Your task to perform on an android device: Add "logitech g502" to the cart on target Image 0: 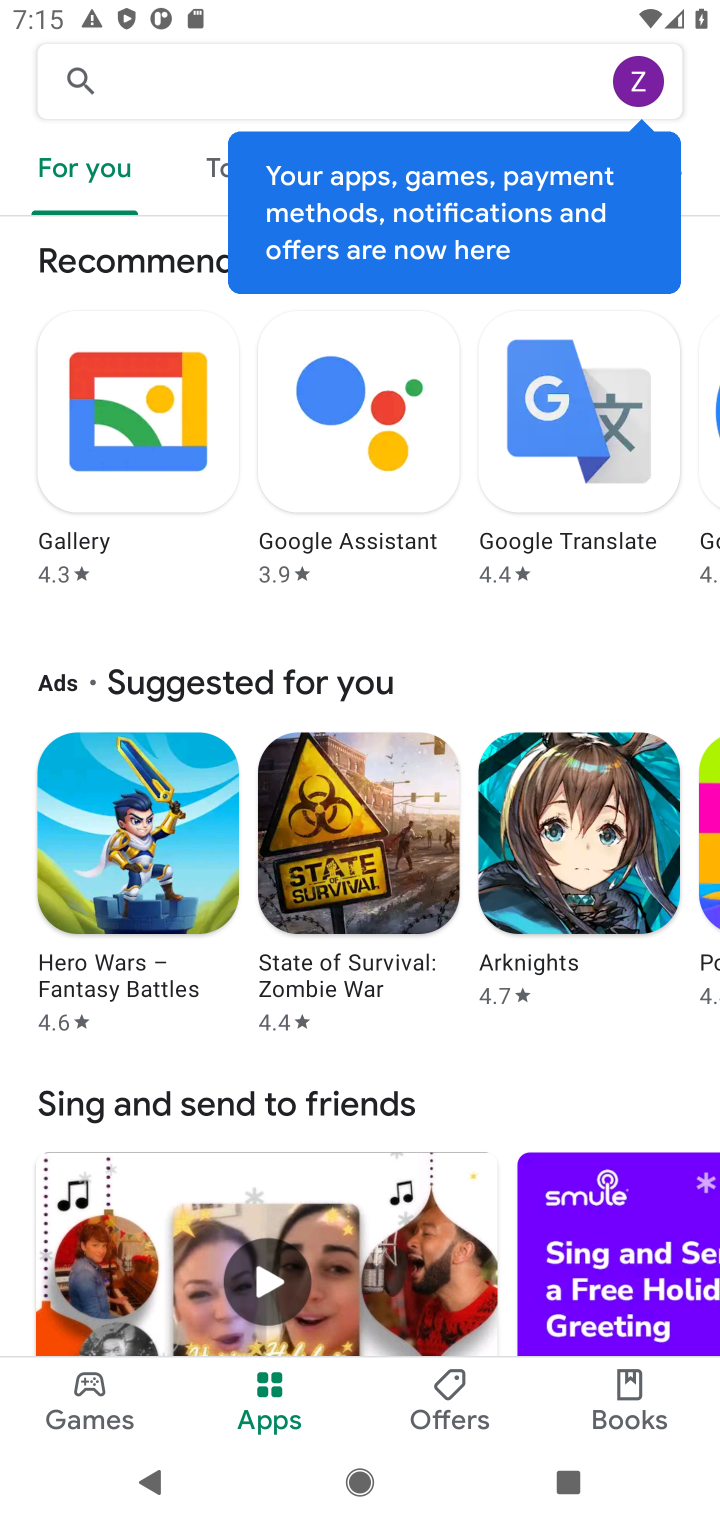
Step 0: press home button
Your task to perform on an android device: Add "logitech g502" to the cart on target Image 1: 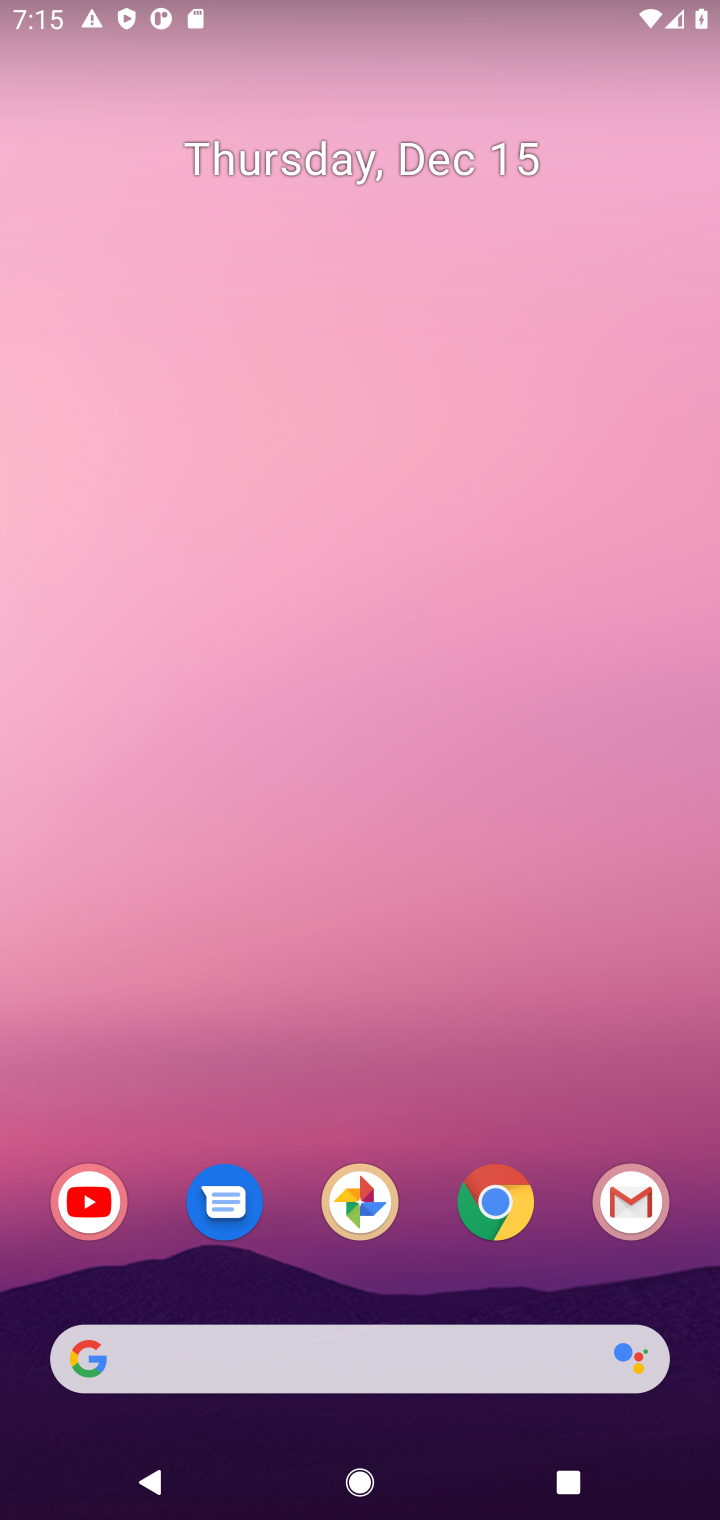
Step 1: click (496, 1201)
Your task to perform on an android device: Add "logitech g502" to the cart on target Image 2: 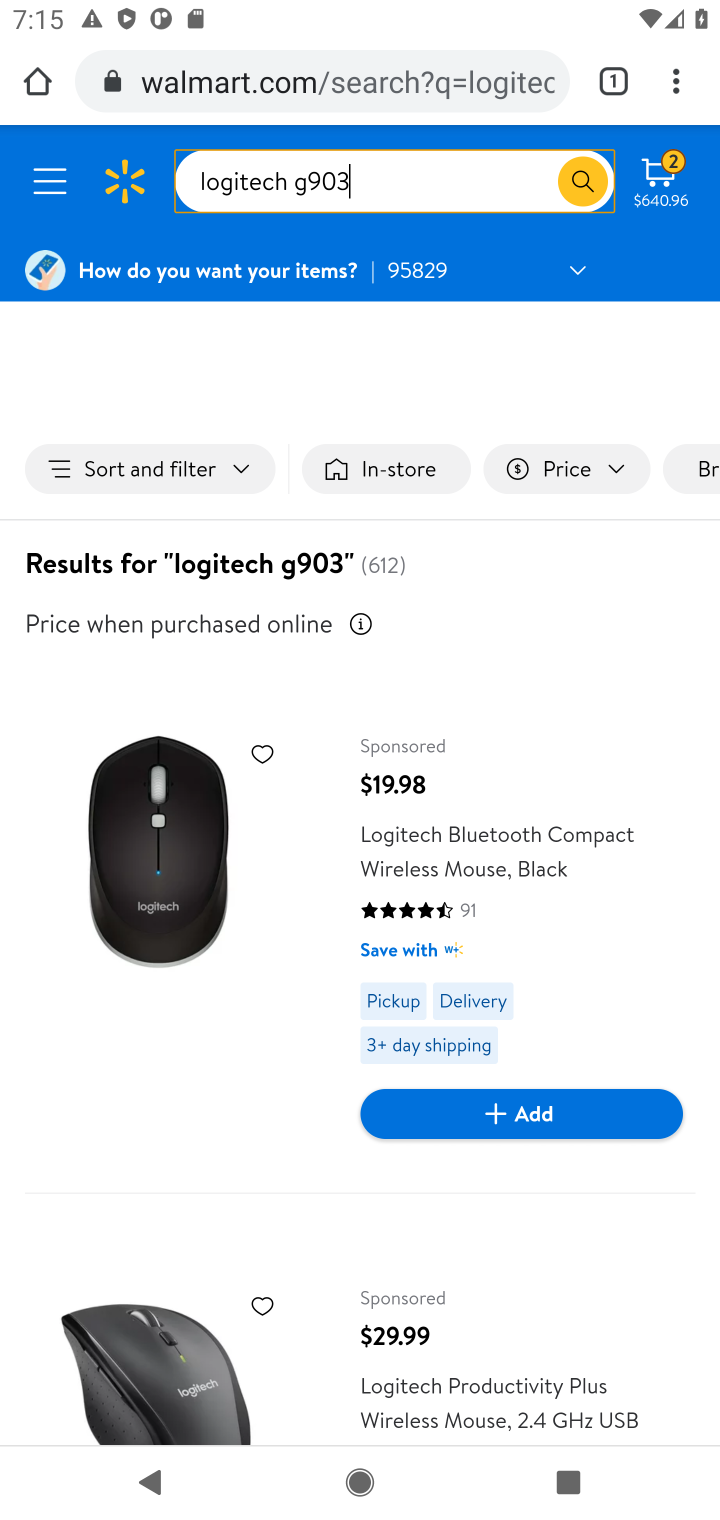
Step 2: click (293, 73)
Your task to perform on an android device: Add "logitech g502" to the cart on target Image 3: 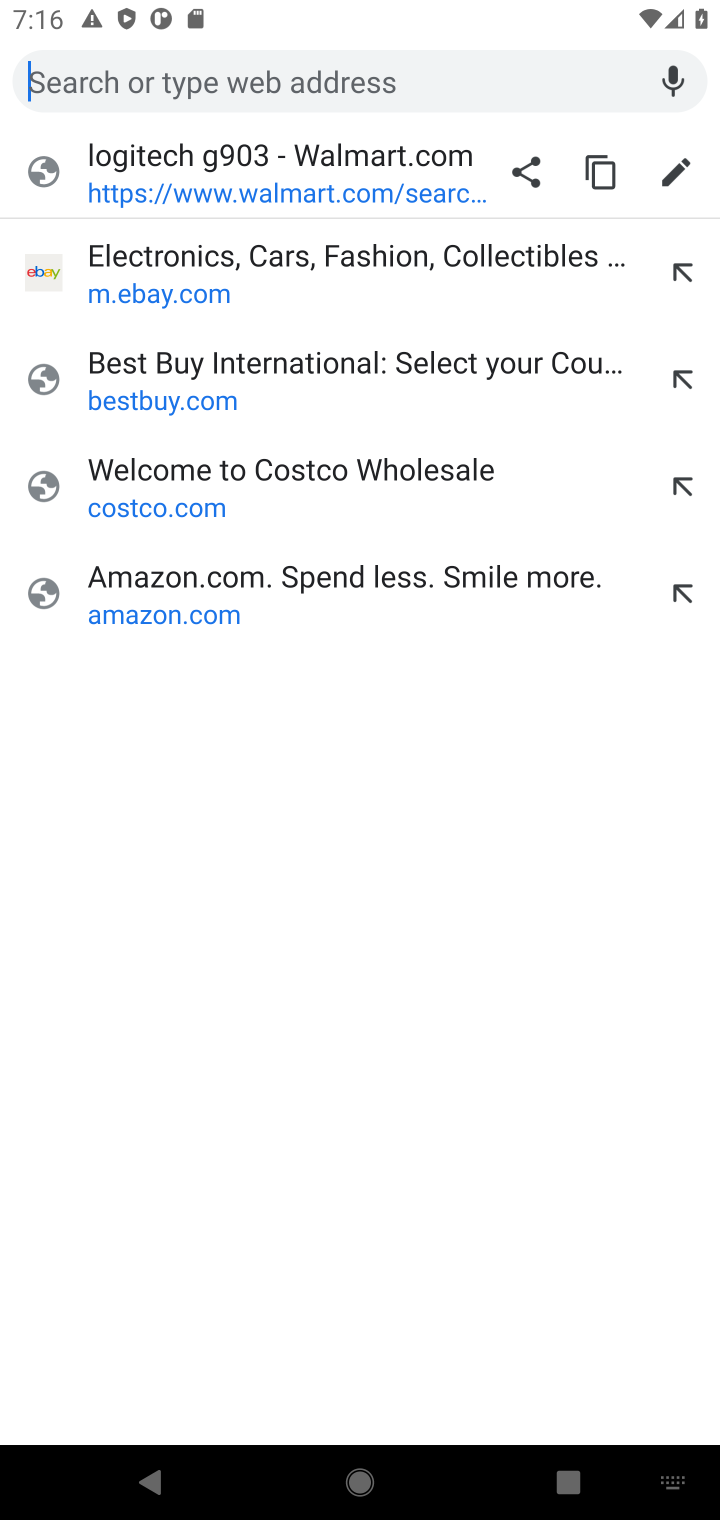
Step 3: type "target.com"
Your task to perform on an android device: Add "logitech g502" to the cart on target Image 4: 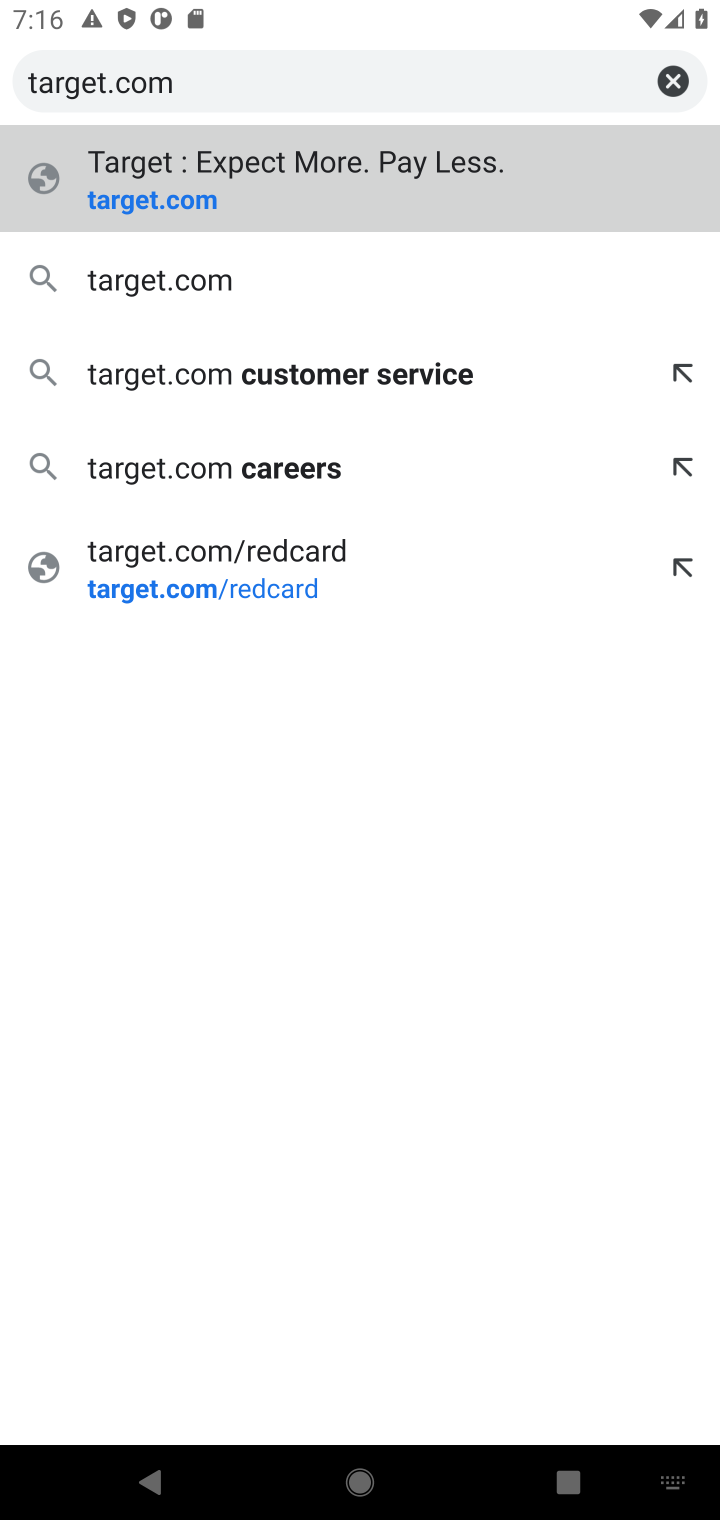
Step 4: click (133, 217)
Your task to perform on an android device: Add "logitech g502" to the cart on target Image 5: 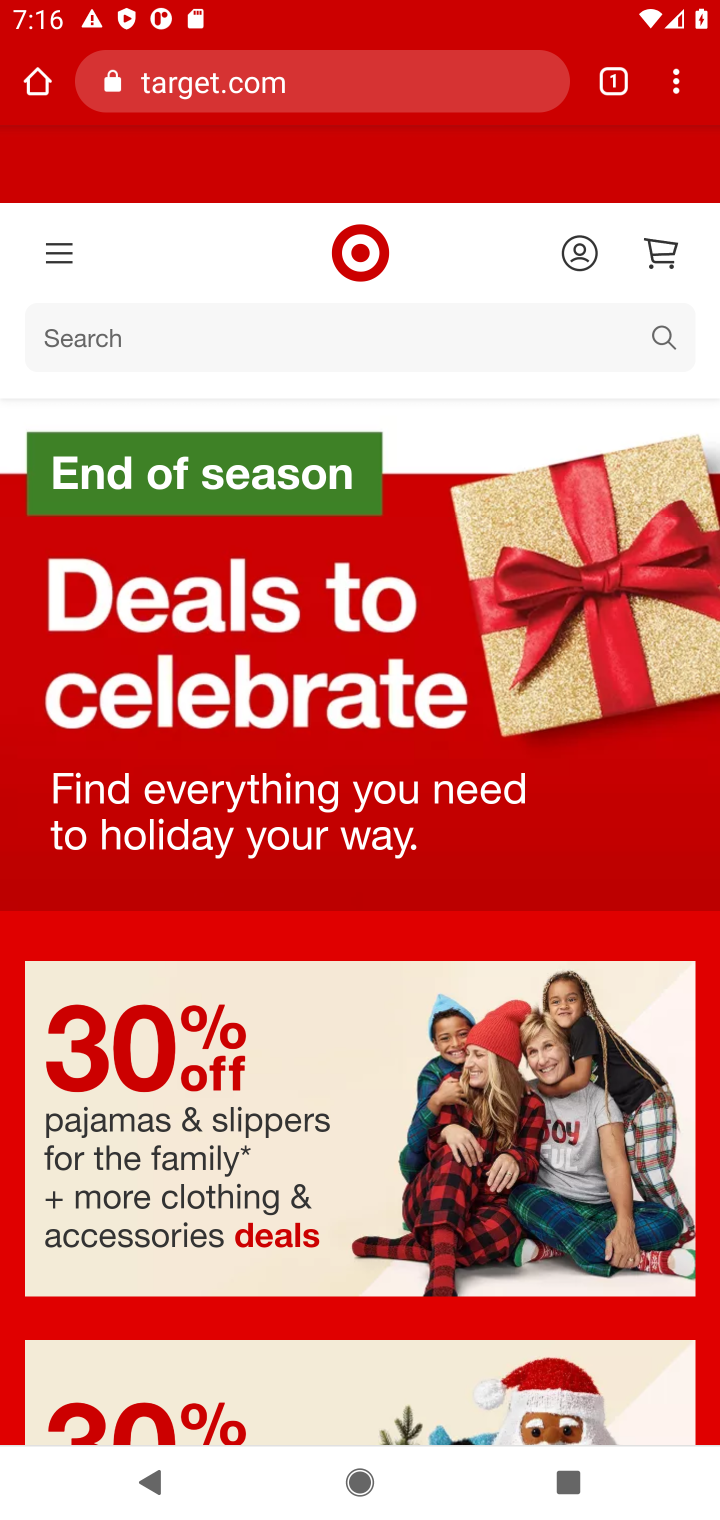
Step 5: click (110, 334)
Your task to perform on an android device: Add "logitech g502" to the cart on target Image 6: 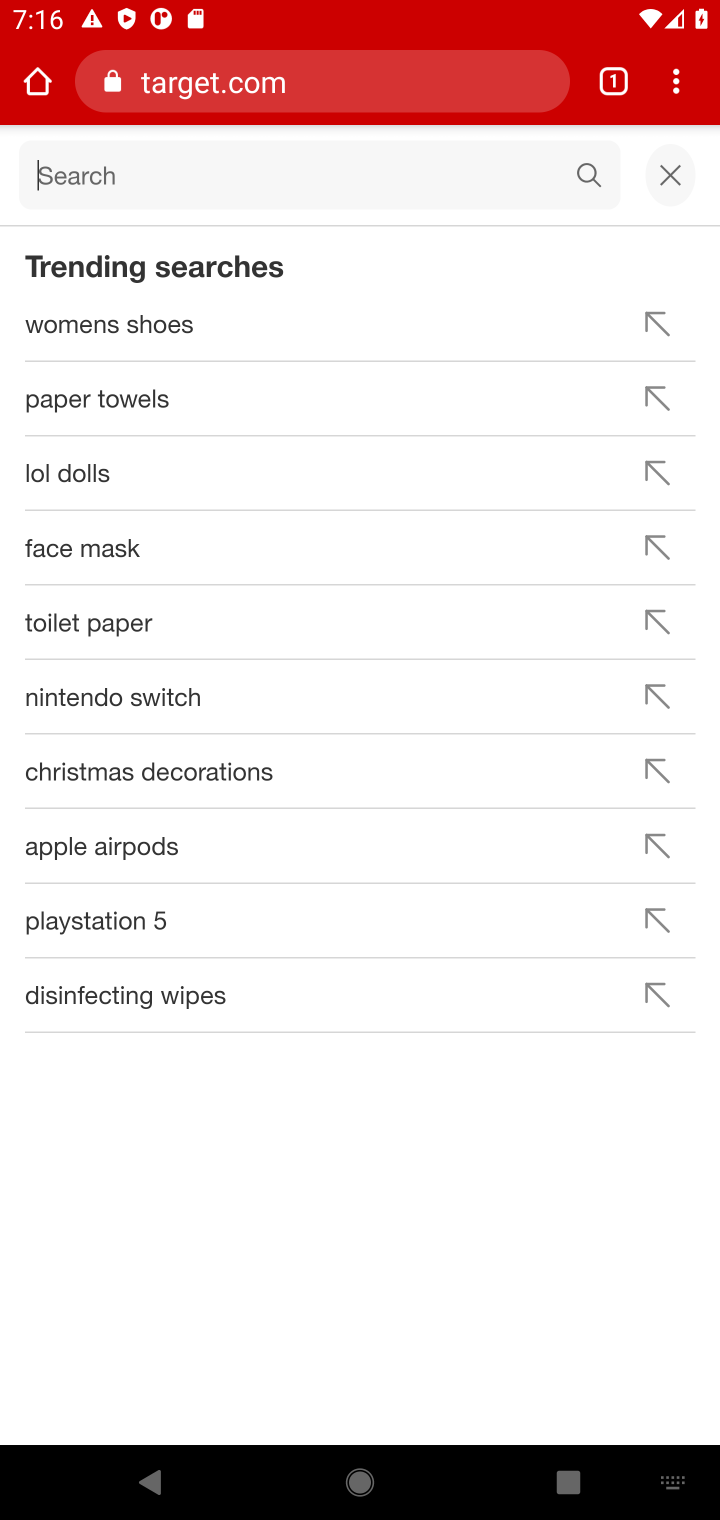
Step 6: type "logitech g502"
Your task to perform on an android device: Add "logitech g502" to the cart on target Image 7: 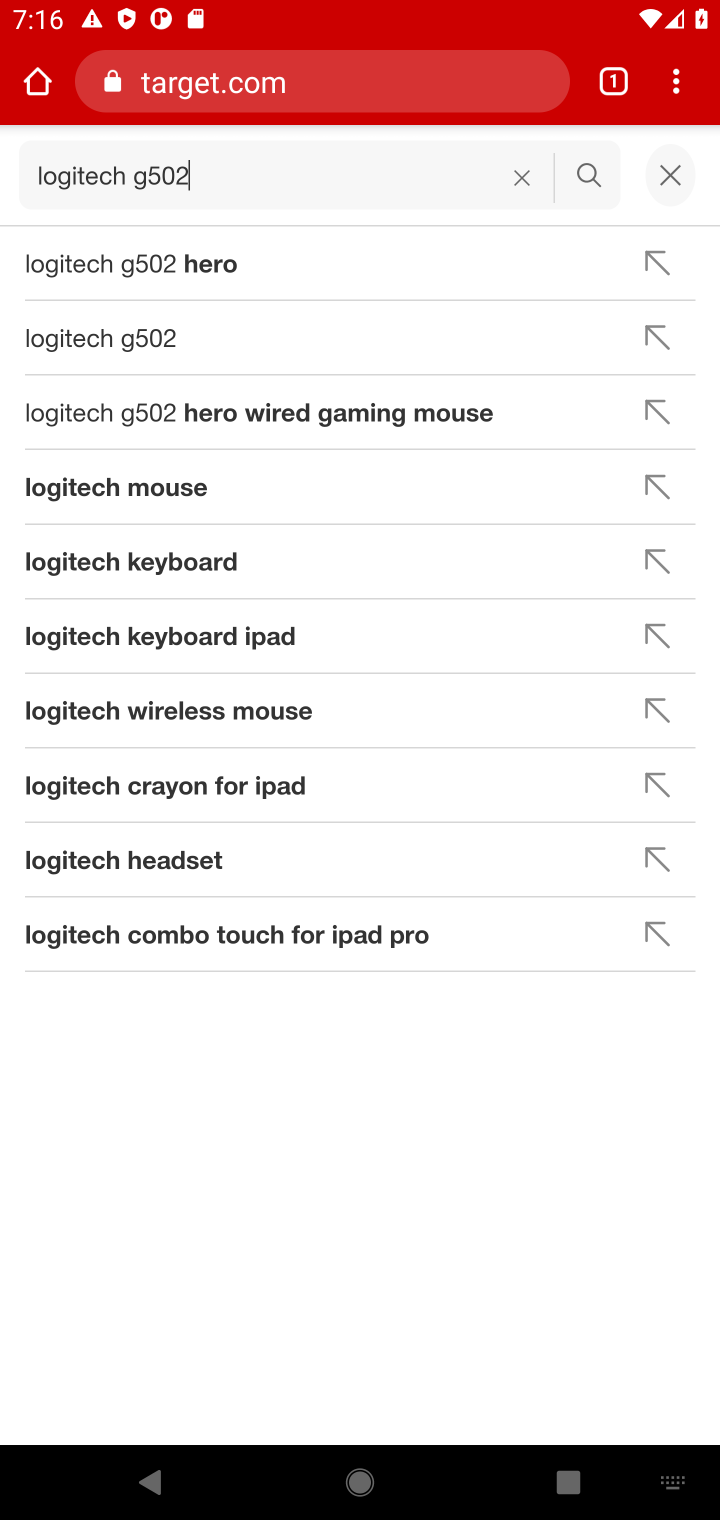
Step 7: click (118, 332)
Your task to perform on an android device: Add "logitech g502" to the cart on target Image 8: 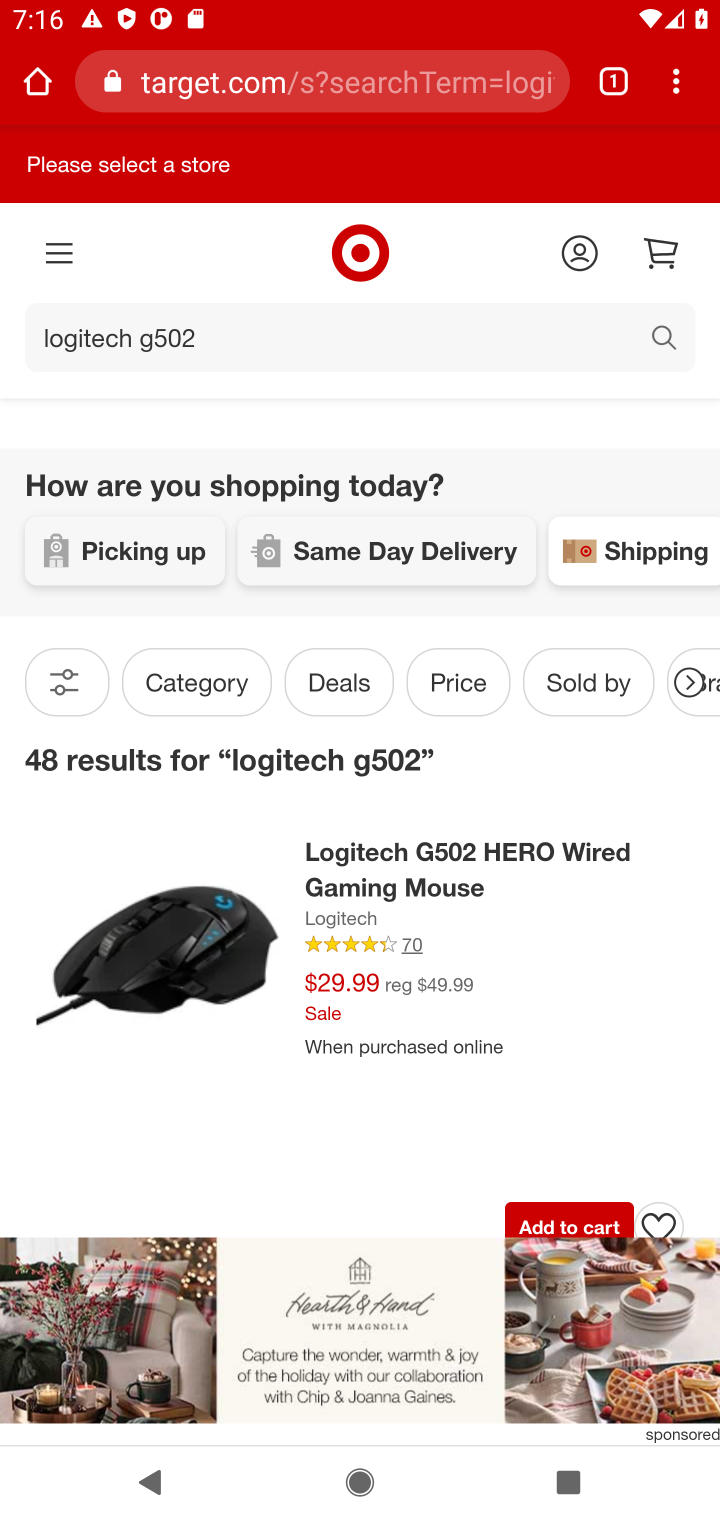
Step 8: drag from (243, 875) to (251, 494)
Your task to perform on an android device: Add "logitech g502" to the cart on target Image 9: 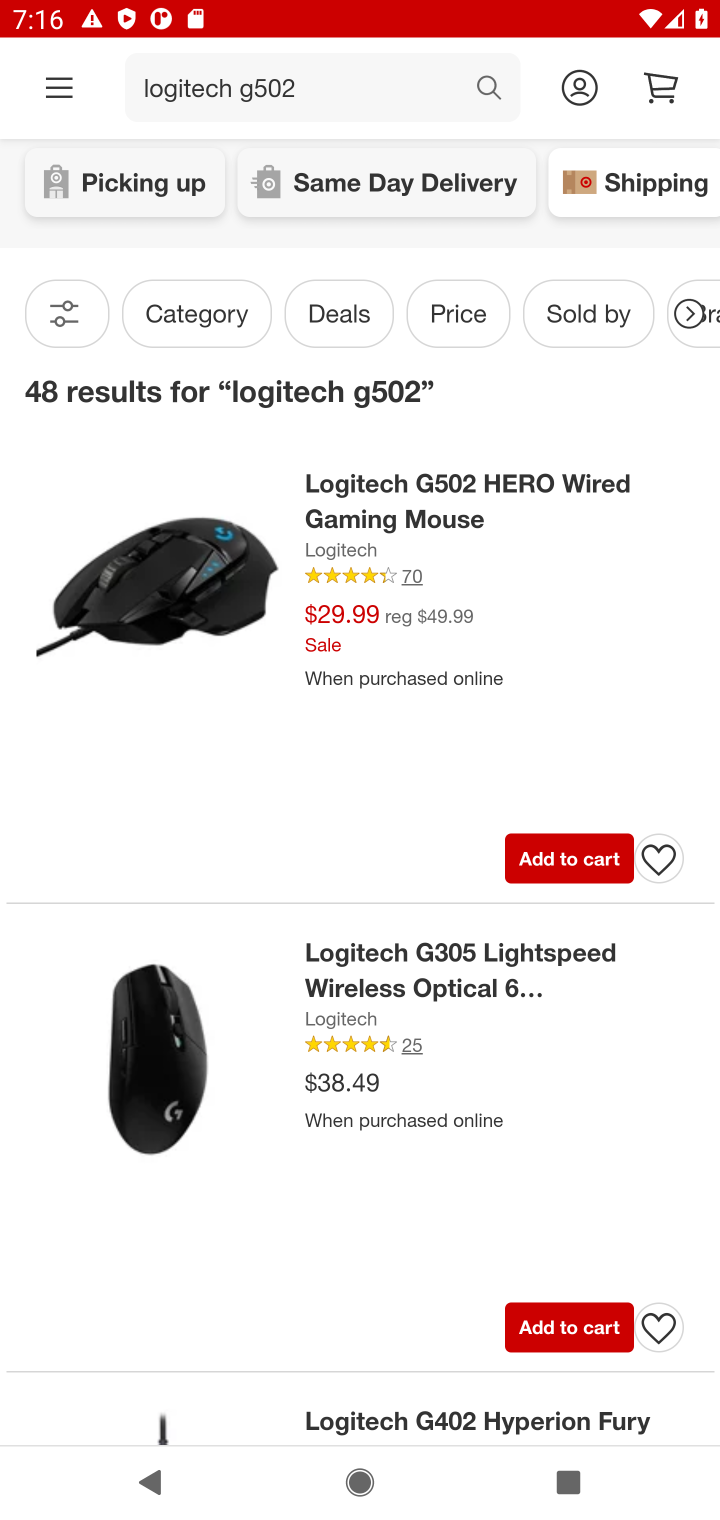
Step 9: click (559, 850)
Your task to perform on an android device: Add "logitech g502" to the cart on target Image 10: 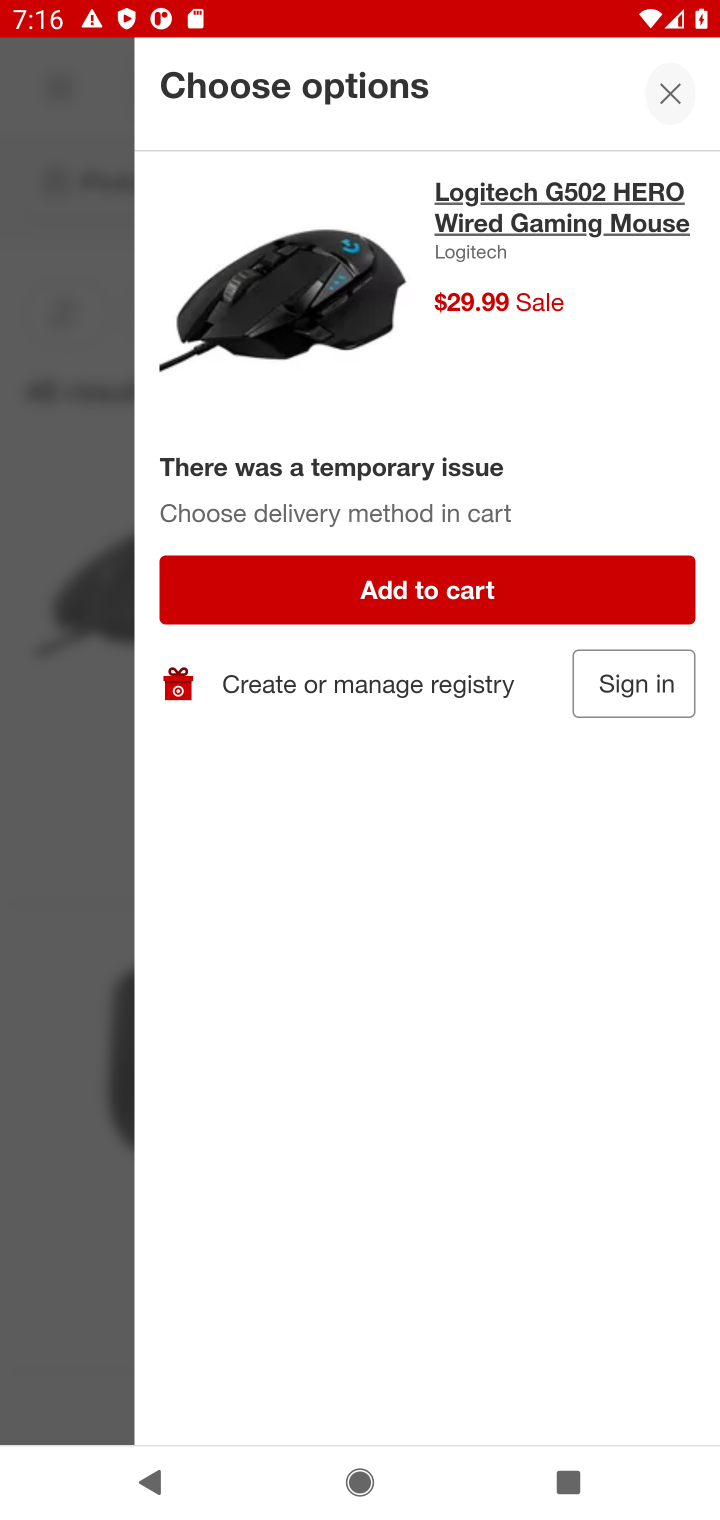
Step 10: click (405, 585)
Your task to perform on an android device: Add "logitech g502" to the cart on target Image 11: 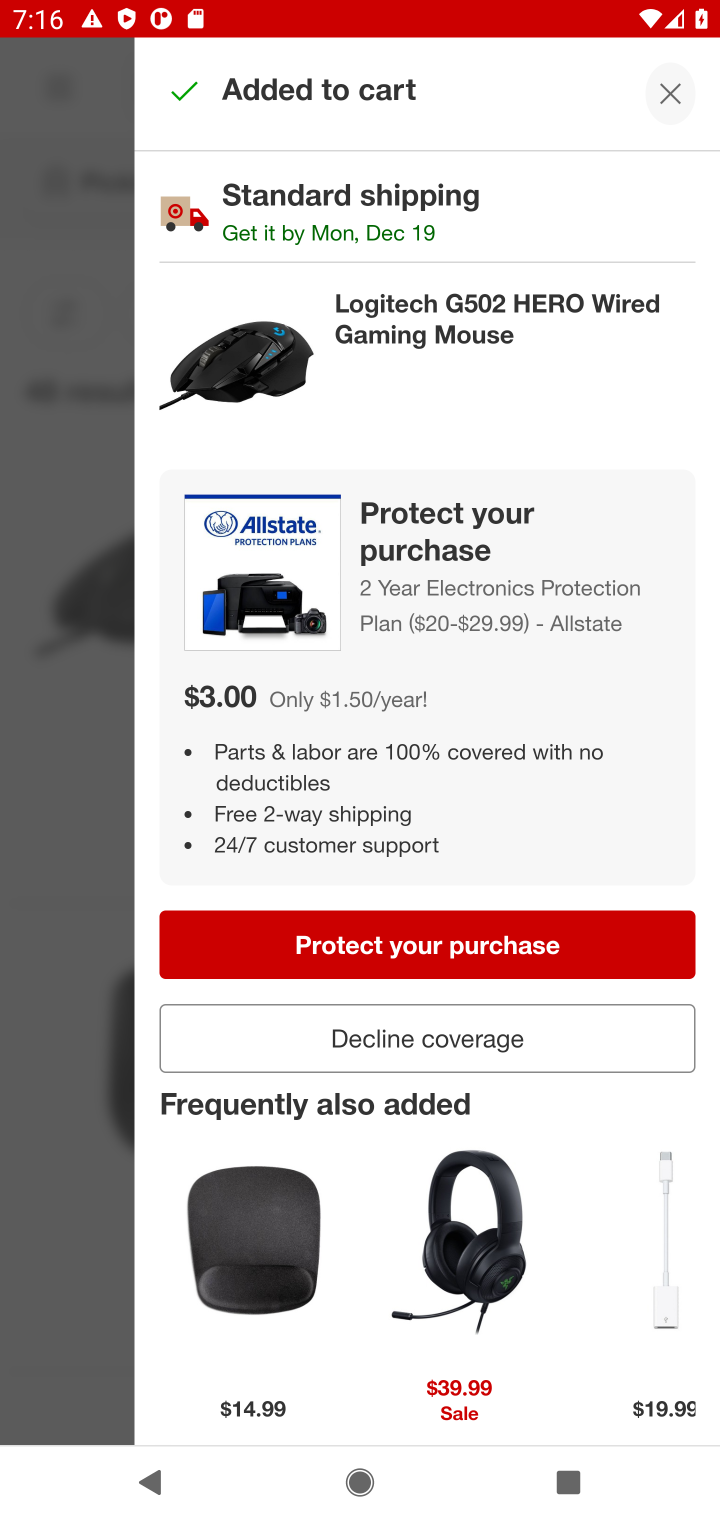
Step 11: task complete